Your task to perform on an android device: Check the news Image 0: 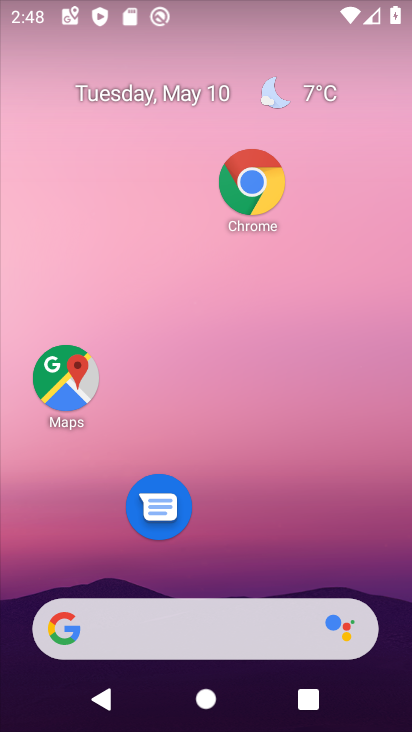
Step 0: click (248, 200)
Your task to perform on an android device: Check the news Image 1: 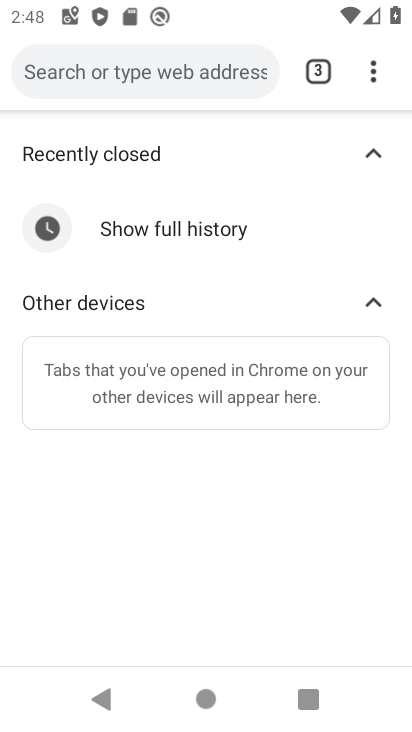
Step 1: click (318, 63)
Your task to perform on an android device: Check the news Image 2: 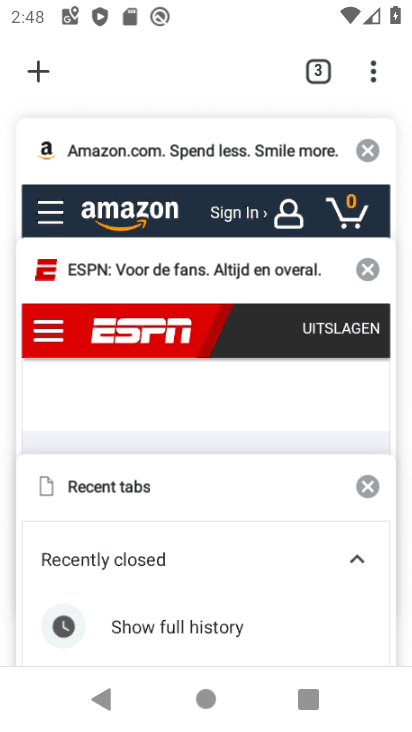
Step 2: click (33, 57)
Your task to perform on an android device: Check the news Image 3: 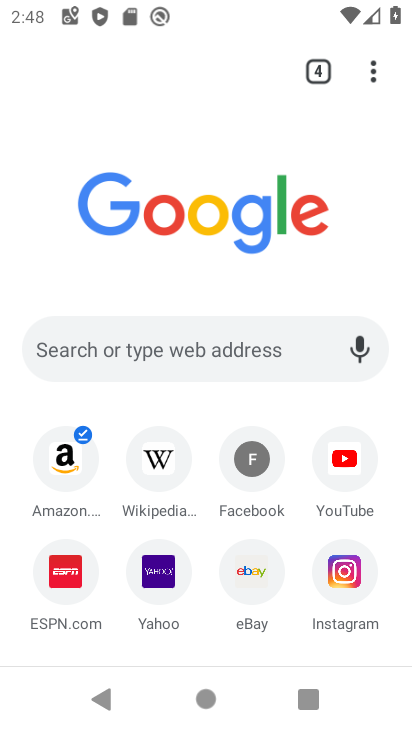
Step 3: click (200, 484)
Your task to perform on an android device: Check the news Image 4: 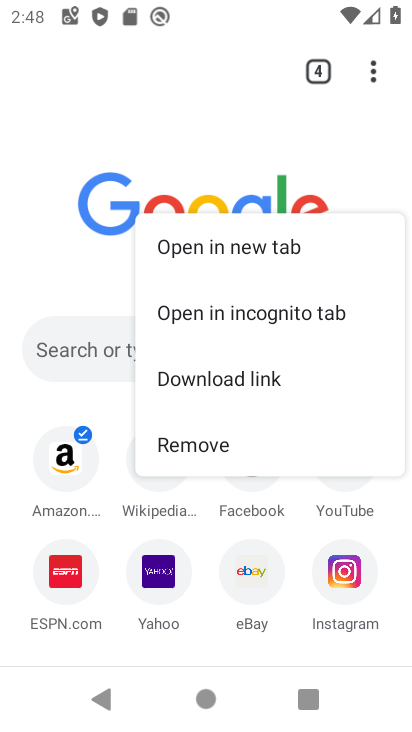
Step 4: click (196, 400)
Your task to perform on an android device: Check the news Image 5: 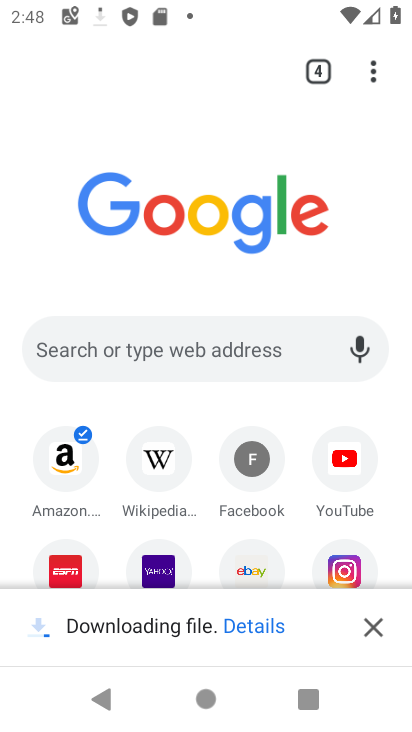
Step 5: task complete